Your task to perform on an android device: turn on javascript in the chrome app Image 0: 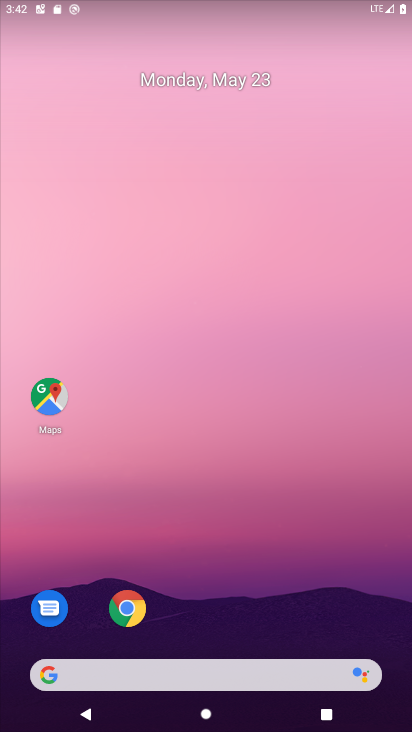
Step 0: click (133, 620)
Your task to perform on an android device: turn on javascript in the chrome app Image 1: 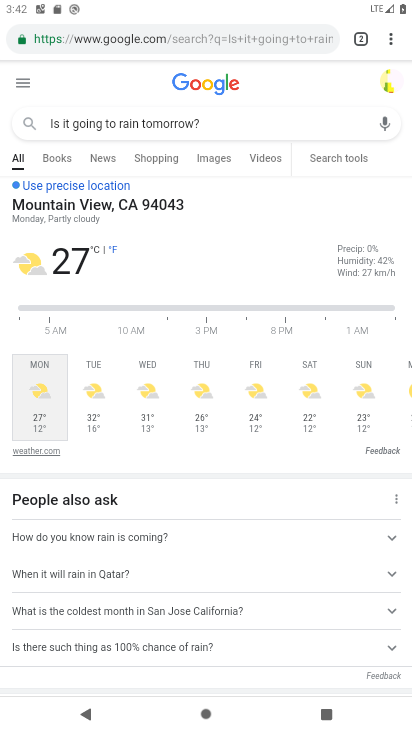
Step 1: click (391, 38)
Your task to perform on an android device: turn on javascript in the chrome app Image 2: 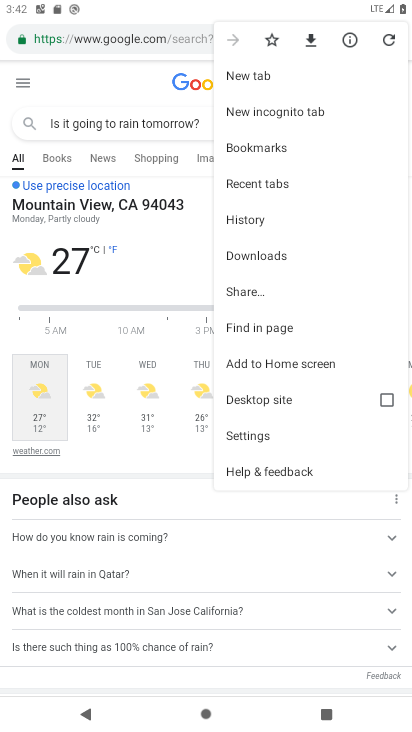
Step 2: click (302, 436)
Your task to perform on an android device: turn on javascript in the chrome app Image 3: 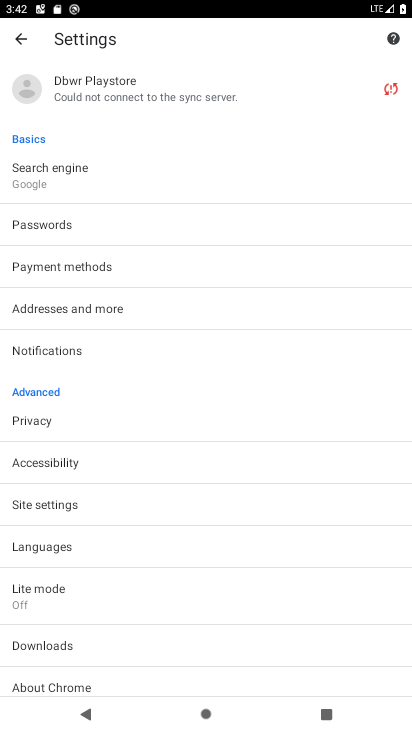
Step 3: click (75, 506)
Your task to perform on an android device: turn on javascript in the chrome app Image 4: 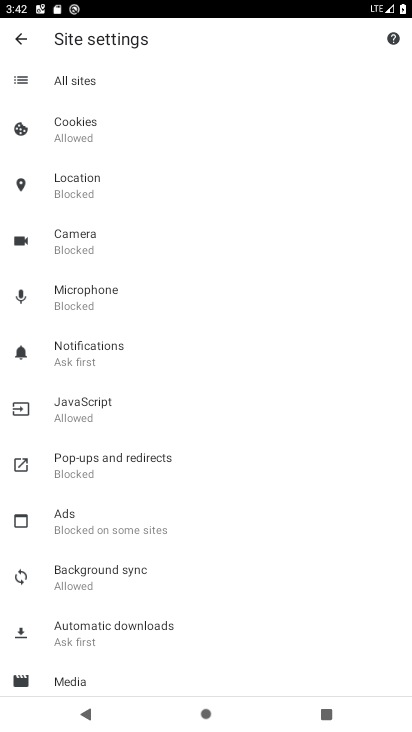
Step 4: click (85, 411)
Your task to perform on an android device: turn on javascript in the chrome app Image 5: 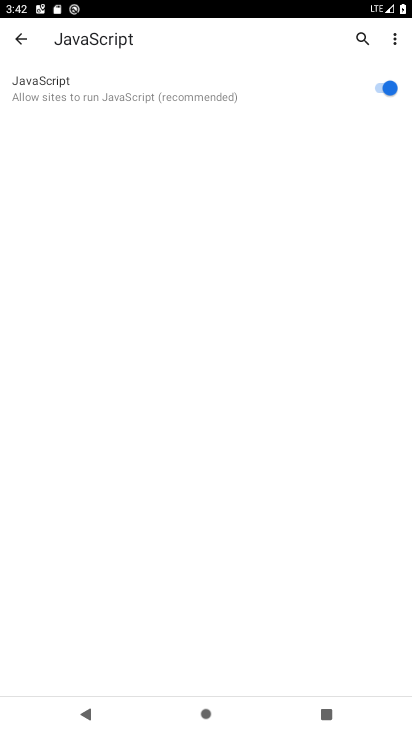
Step 5: task complete